Your task to perform on an android device: Add "razer nari" to the cart on costco Image 0: 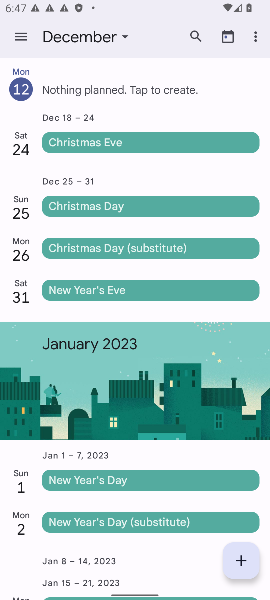
Step 0: click (254, 449)
Your task to perform on an android device: Add "razer nari" to the cart on costco Image 1: 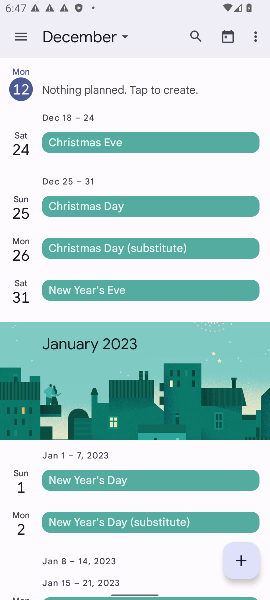
Step 1: press home button
Your task to perform on an android device: Add "razer nari" to the cart on costco Image 2: 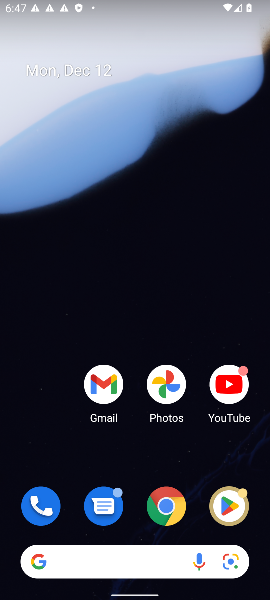
Step 2: click (118, 570)
Your task to perform on an android device: Add "razer nari" to the cart on costco Image 3: 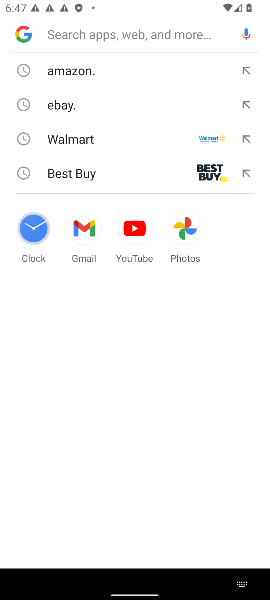
Step 3: type "costco"
Your task to perform on an android device: Add "razer nari" to the cart on costco Image 4: 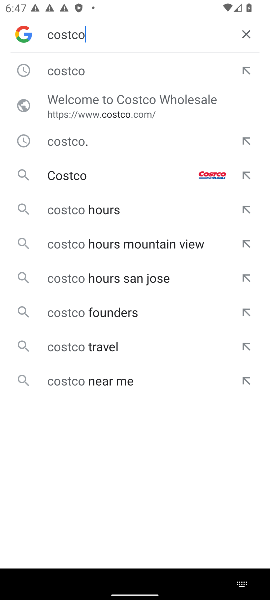
Step 4: click (124, 171)
Your task to perform on an android device: Add "razer nari" to the cart on costco Image 5: 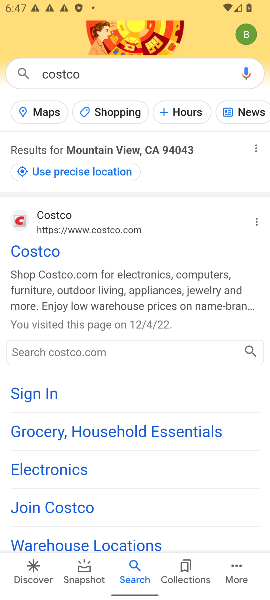
Step 5: click (36, 255)
Your task to perform on an android device: Add "razer nari" to the cart on costco Image 6: 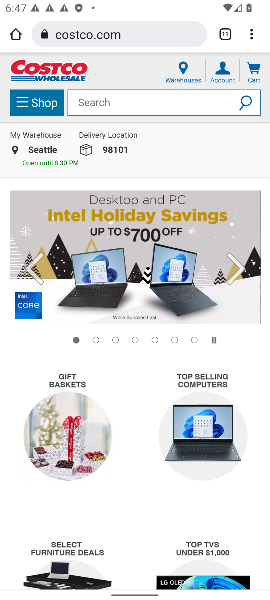
Step 6: click (107, 113)
Your task to perform on an android device: Add "razer nari" to the cart on costco Image 7: 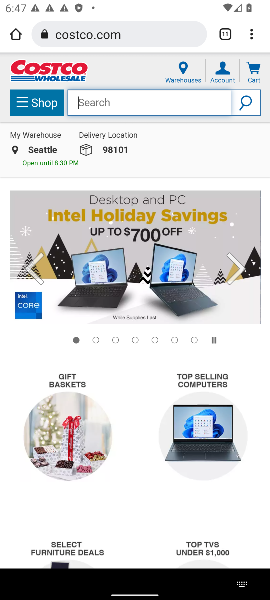
Step 7: type "razer nari"
Your task to perform on an android device: Add "razer nari" to the cart on costco Image 8: 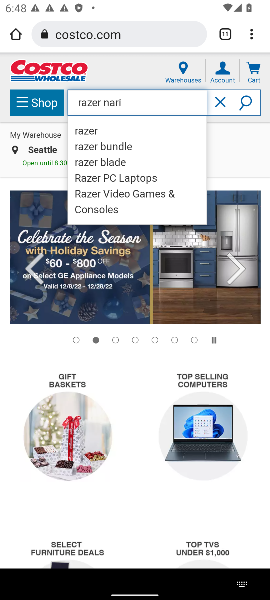
Step 8: click (247, 101)
Your task to perform on an android device: Add "razer nari" to the cart on costco Image 9: 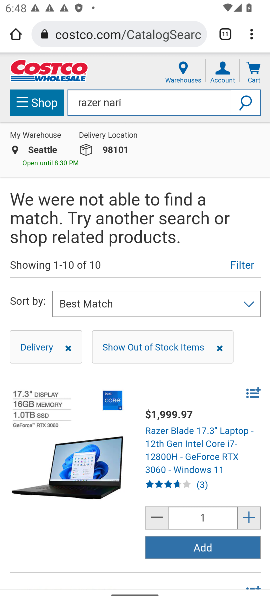
Step 9: click (178, 550)
Your task to perform on an android device: Add "razer nari" to the cart on costco Image 10: 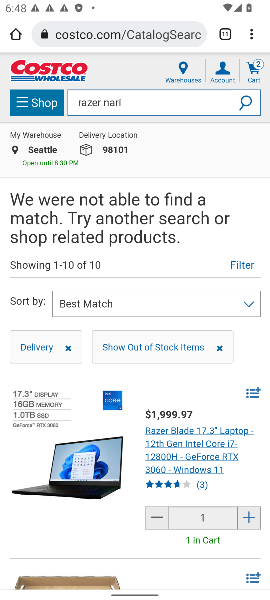
Step 10: task complete